Your task to perform on an android device: turn on translation in the chrome app Image 0: 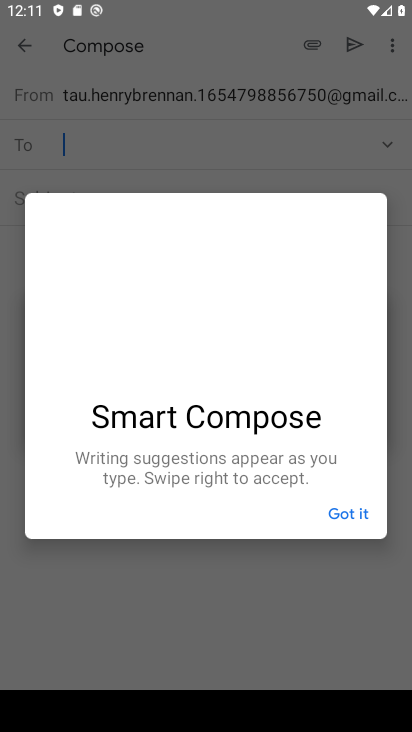
Step 0: press home button
Your task to perform on an android device: turn on translation in the chrome app Image 1: 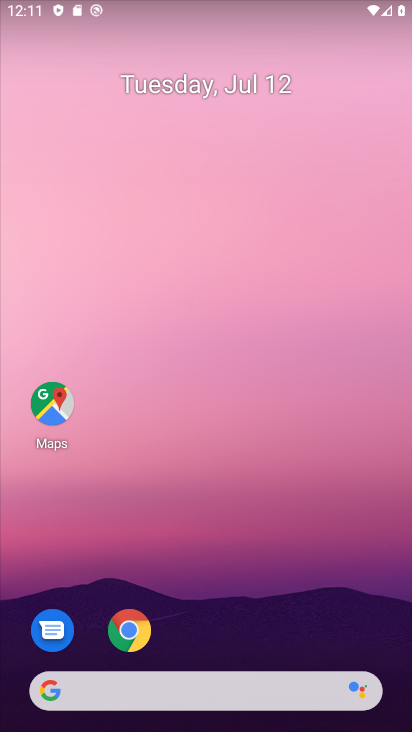
Step 1: drag from (191, 672) to (298, 135)
Your task to perform on an android device: turn on translation in the chrome app Image 2: 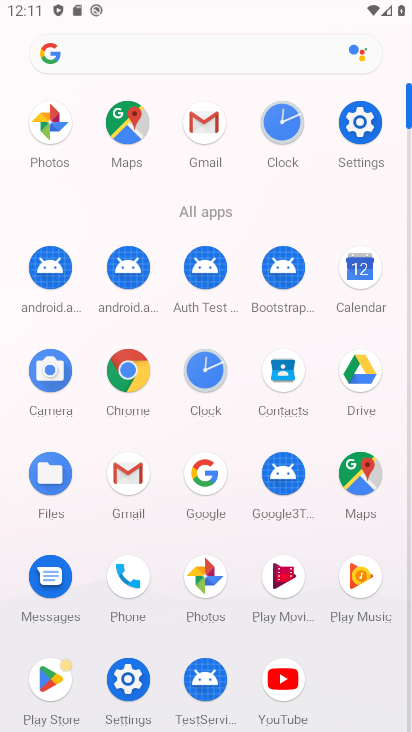
Step 2: click (113, 379)
Your task to perform on an android device: turn on translation in the chrome app Image 3: 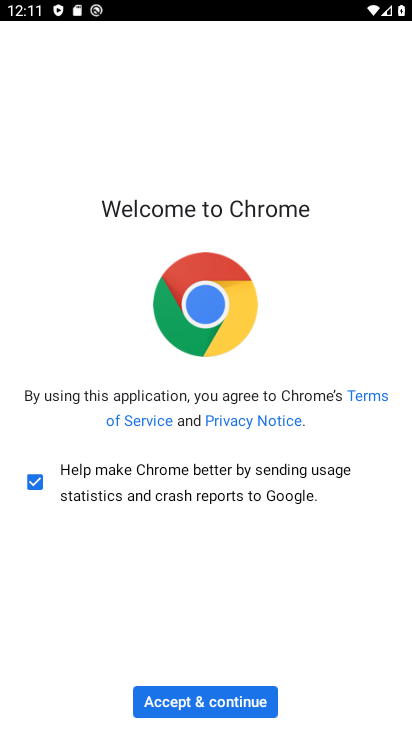
Step 3: click (220, 705)
Your task to perform on an android device: turn on translation in the chrome app Image 4: 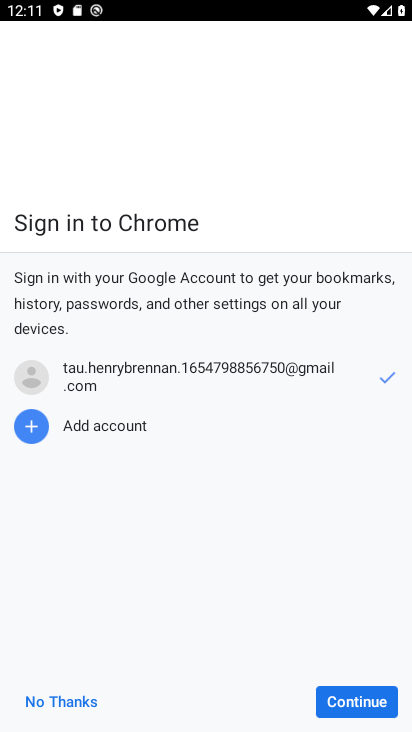
Step 4: click (327, 694)
Your task to perform on an android device: turn on translation in the chrome app Image 5: 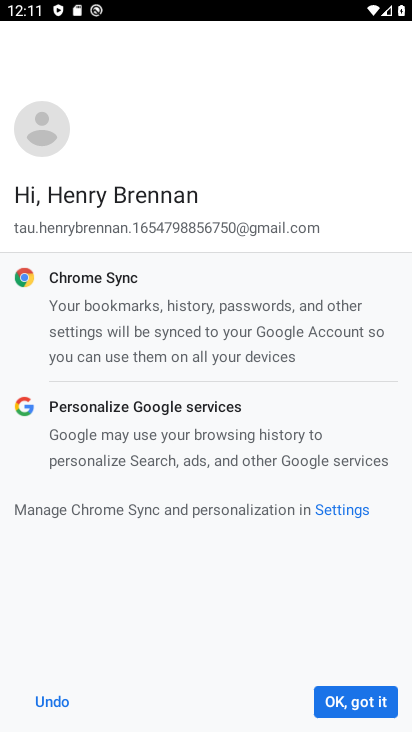
Step 5: click (350, 690)
Your task to perform on an android device: turn on translation in the chrome app Image 6: 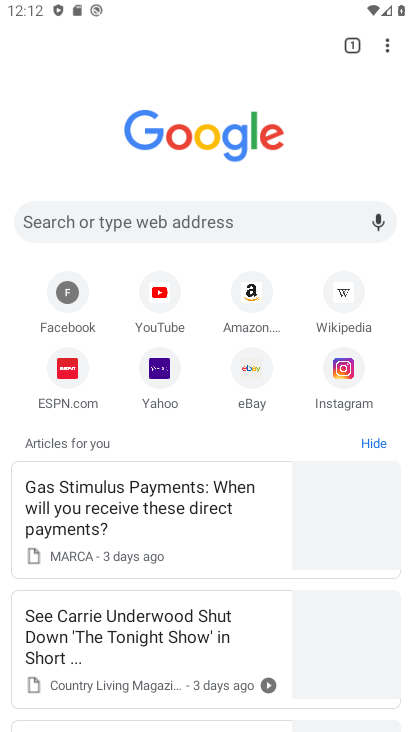
Step 6: drag from (392, 48) to (303, 383)
Your task to perform on an android device: turn on translation in the chrome app Image 7: 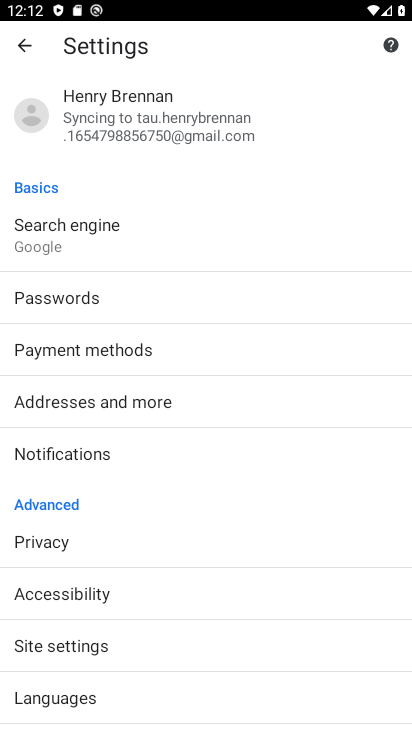
Step 7: drag from (184, 647) to (226, 413)
Your task to perform on an android device: turn on translation in the chrome app Image 8: 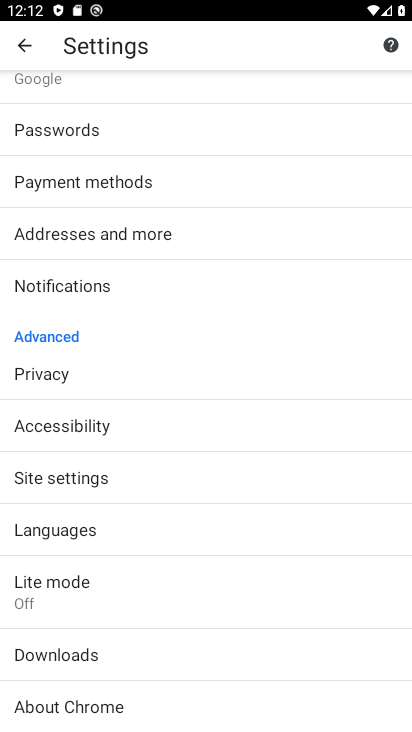
Step 8: click (128, 534)
Your task to perform on an android device: turn on translation in the chrome app Image 9: 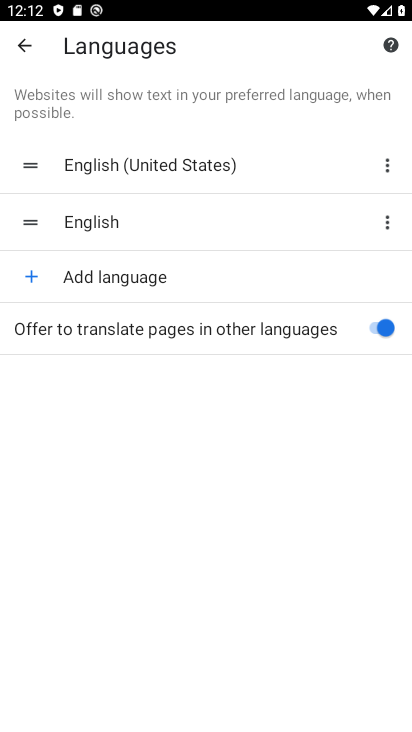
Step 9: task complete